Your task to perform on an android device: Open location settings Image 0: 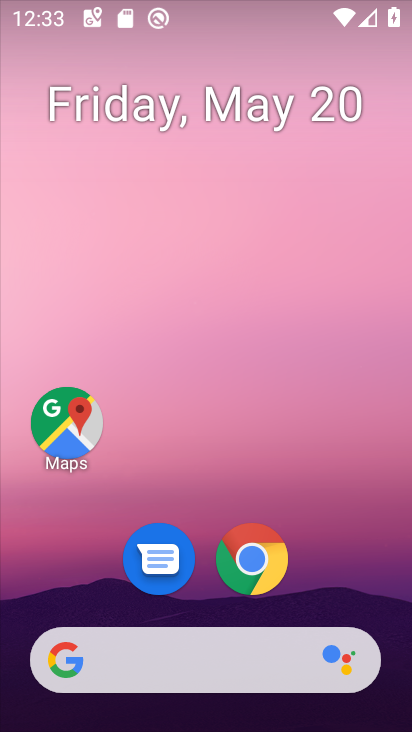
Step 0: drag from (381, 584) to (314, 75)
Your task to perform on an android device: Open location settings Image 1: 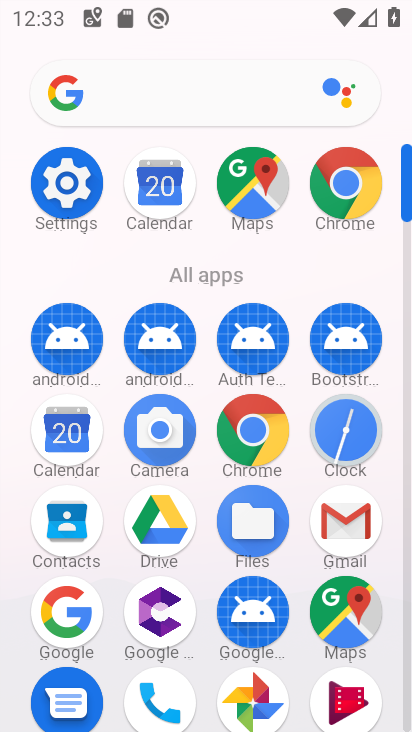
Step 1: click (62, 184)
Your task to perform on an android device: Open location settings Image 2: 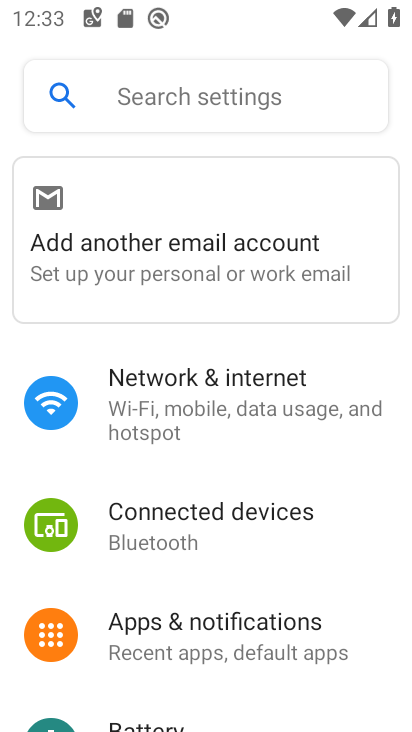
Step 2: drag from (231, 679) to (143, 221)
Your task to perform on an android device: Open location settings Image 3: 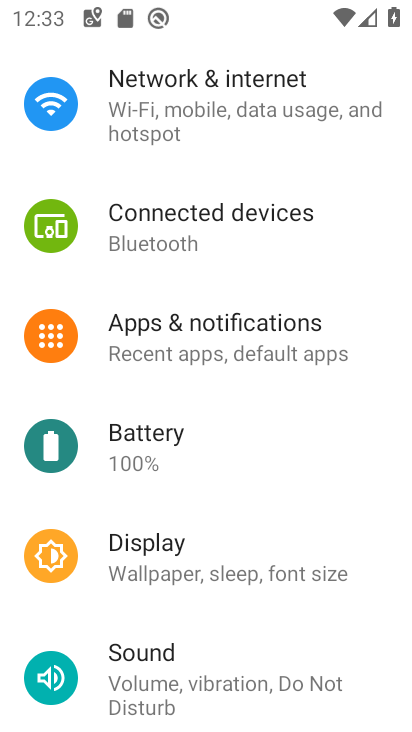
Step 3: drag from (313, 659) to (304, 399)
Your task to perform on an android device: Open location settings Image 4: 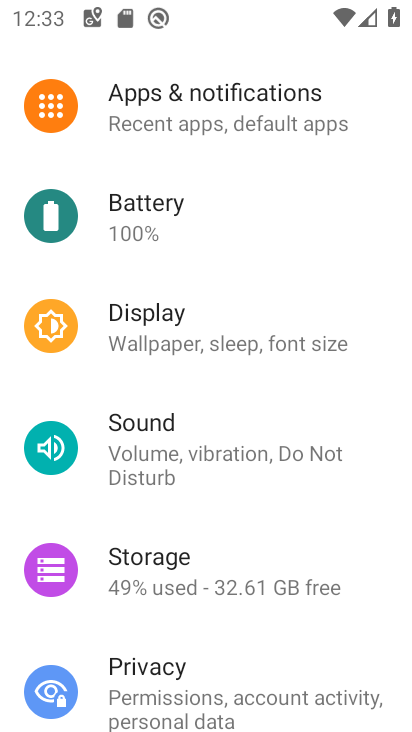
Step 4: drag from (292, 665) to (278, 406)
Your task to perform on an android device: Open location settings Image 5: 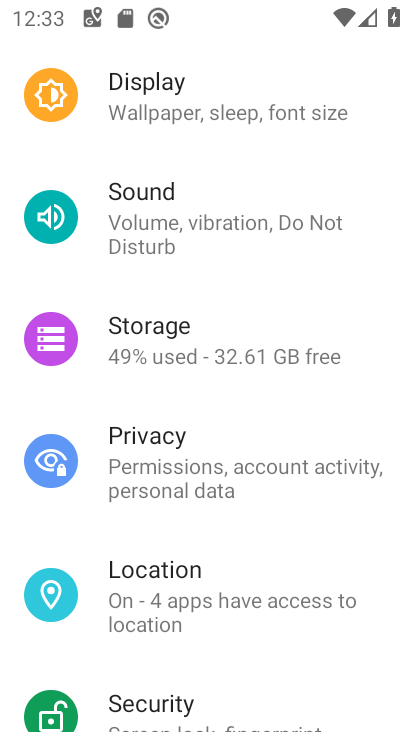
Step 5: click (300, 600)
Your task to perform on an android device: Open location settings Image 6: 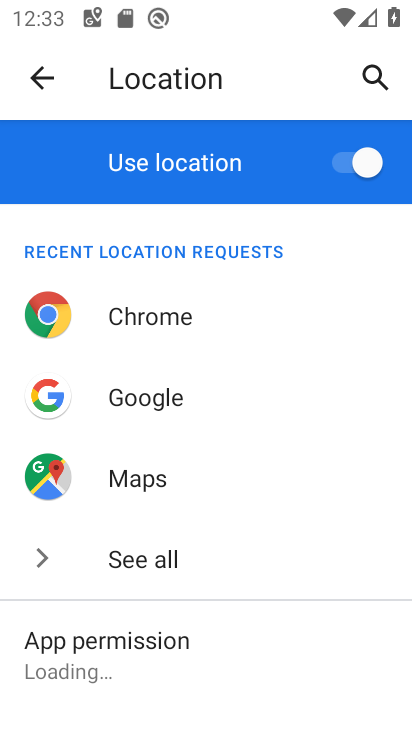
Step 6: task complete